Your task to perform on an android device: Open Youtube and go to "Your channel" Image 0: 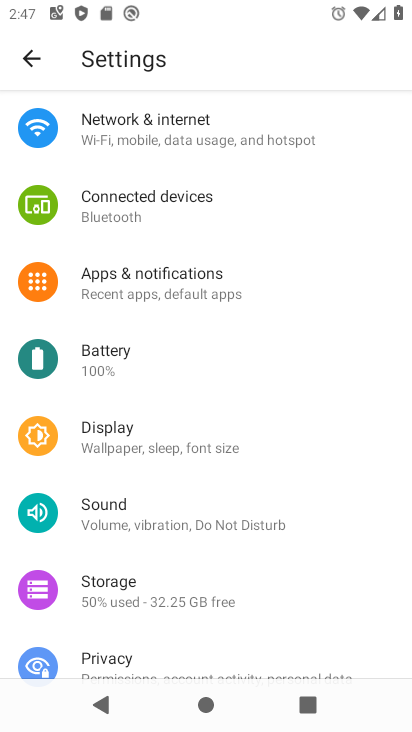
Step 0: press home button
Your task to perform on an android device: Open Youtube and go to "Your channel" Image 1: 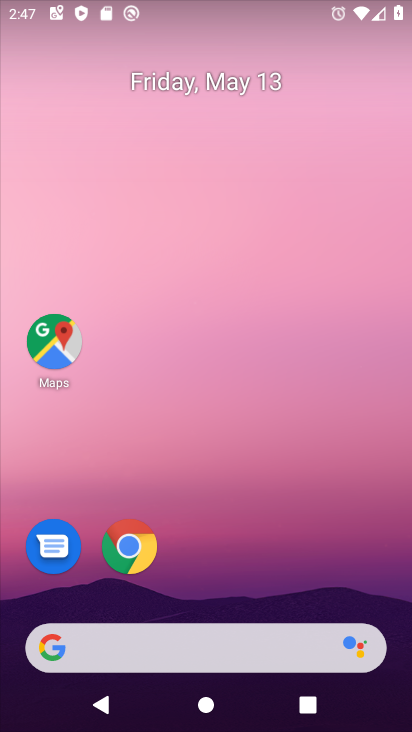
Step 1: drag from (261, 489) to (269, 110)
Your task to perform on an android device: Open Youtube and go to "Your channel" Image 2: 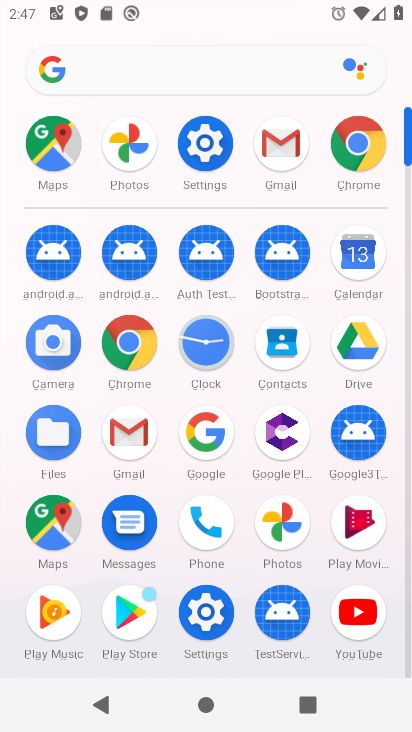
Step 2: click (352, 623)
Your task to perform on an android device: Open Youtube and go to "Your channel" Image 3: 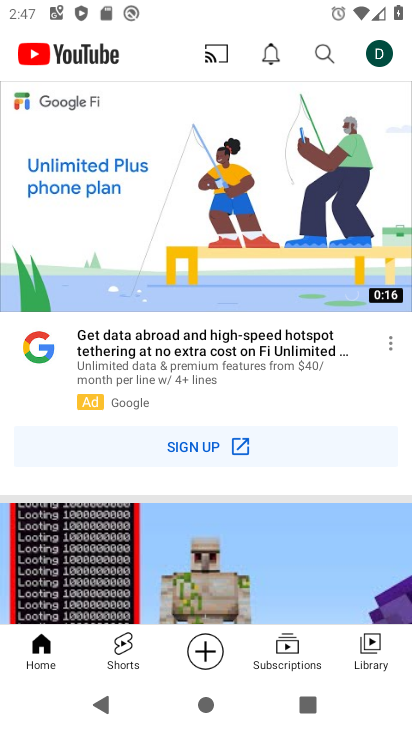
Step 3: click (382, 46)
Your task to perform on an android device: Open Youtube and go to "Your channel" Image 4: 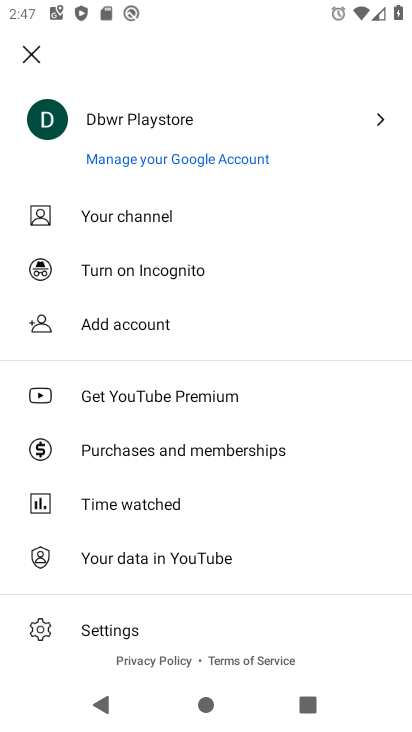
Step 4: click (152, 216)
Your task to perform on an android device: Open Youtube and go to "Your channel" Image 5: 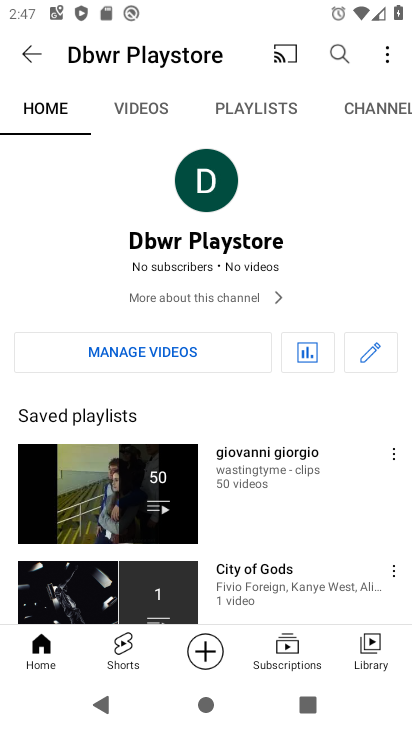
Step 5: task complete